Your task to perform on an android device: toggle sleep mode Image 0: 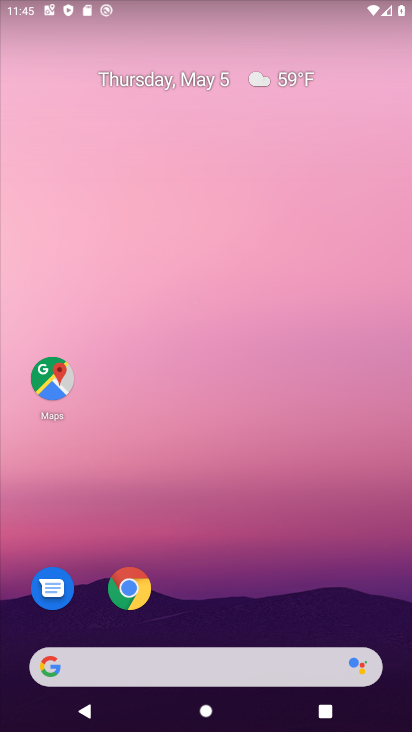
Step 0: drag from (302, 492) to (370, 45)
Your task to perform on an android device: toggle sleep mode Image 1: 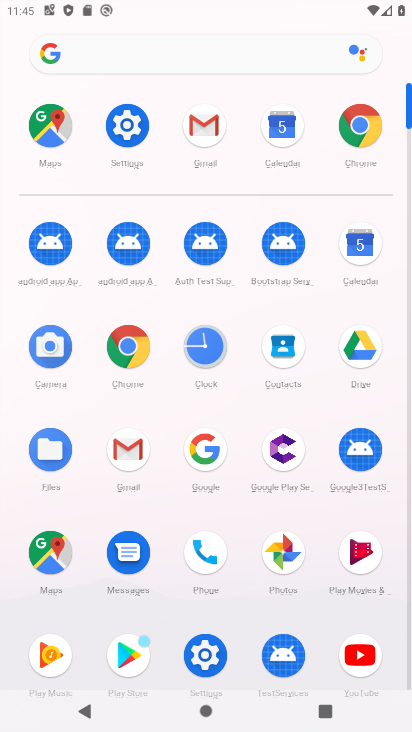
Step 1: click (118, 128)
Your task to perform on an android device: toggle sleep mode Image 2: 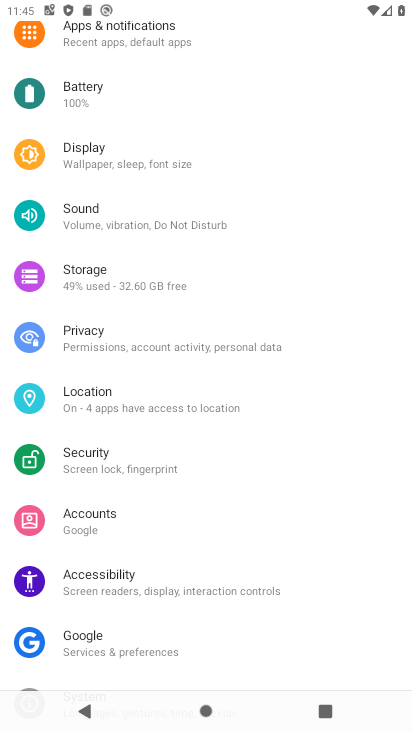
Step 2: click (170, 153)
Your task to perform on an android device: toggle sleep mode Image 3: 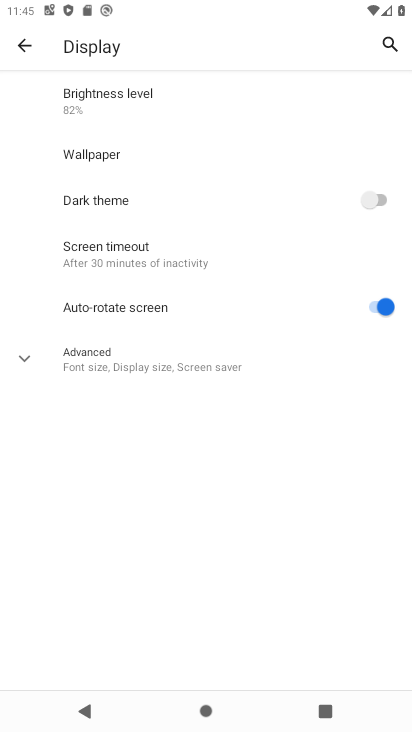
Step 3: click (23, 358)
Your task to perform on an android device: toggle sleep mode Image 4: 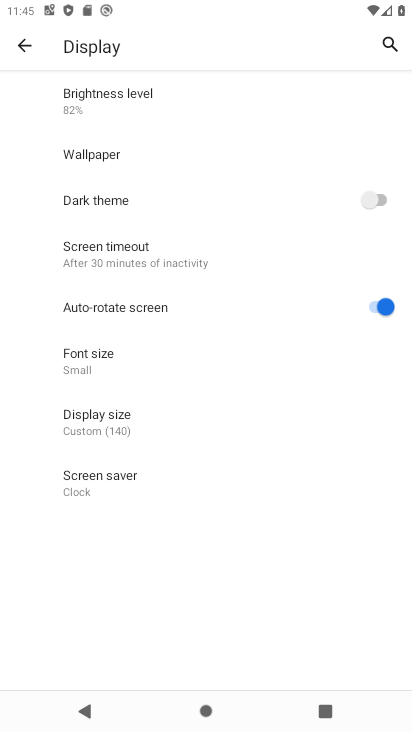
Step 4: task complete